Your task to perform on an android device: Is it going to rain this weekend? Image 0: 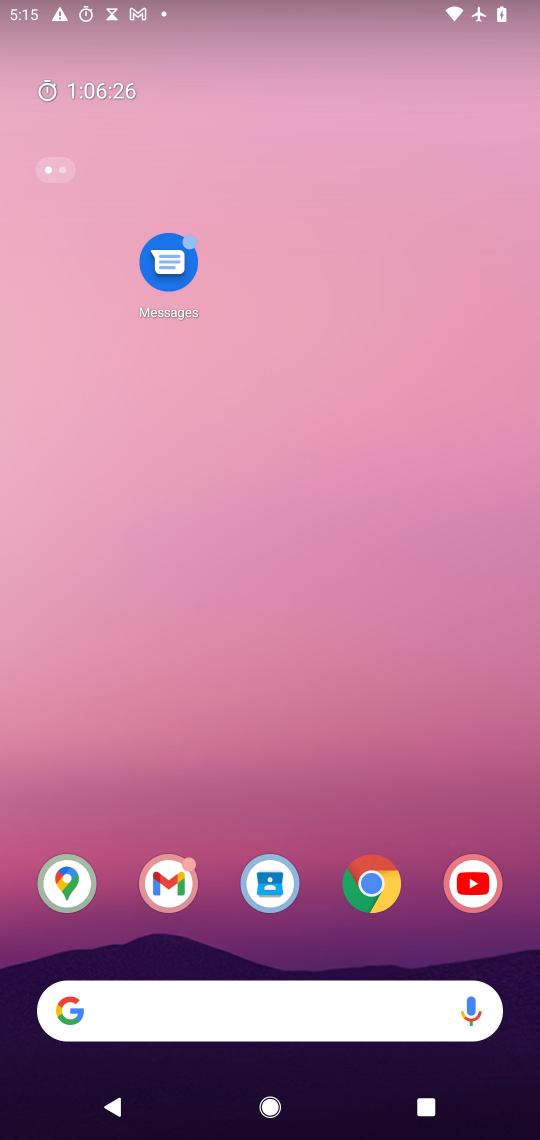
Step 0: drag from (324, 906) to (320, 53)
Your task to perform on an android device: Is it going to rain this weekend? Image 1: 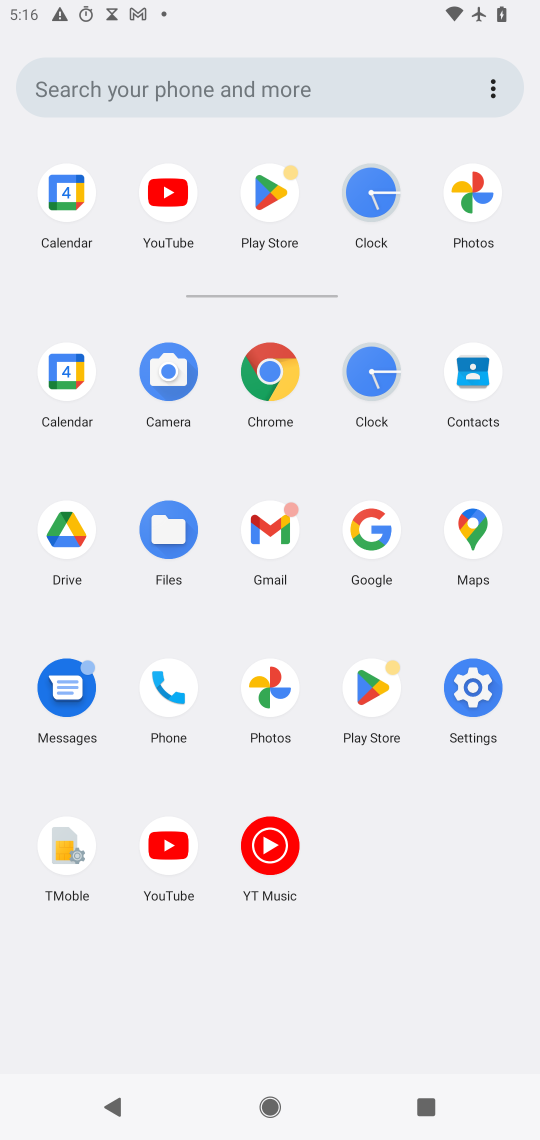
Step 1: click (376, 528)
Your task to perform on an android device: Is it going to rain this weekend? Image 2: 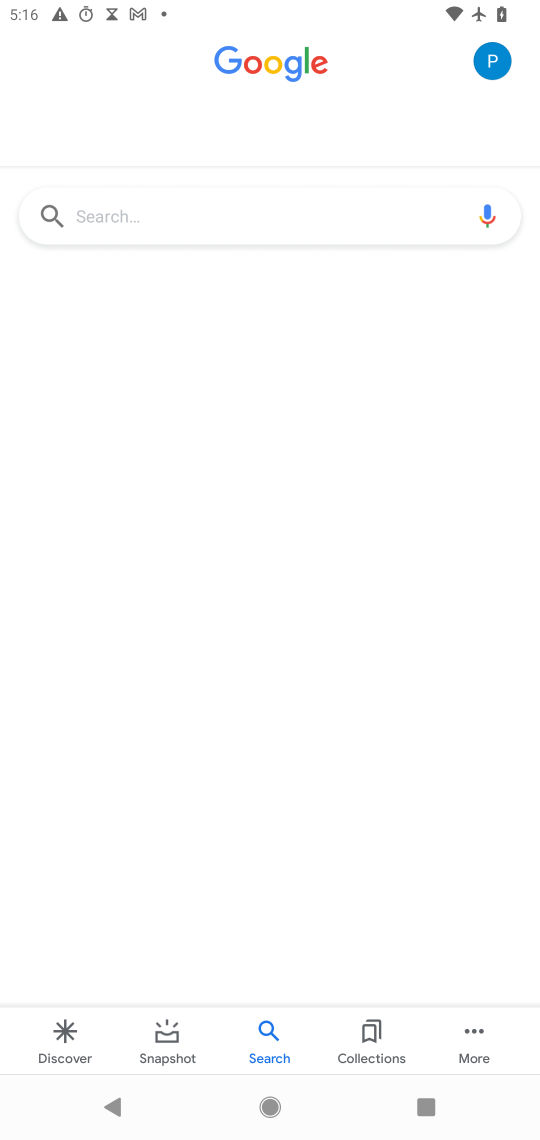
Step 2: click (218, 218)
Your task to perform on an android device: Is it going to rain this weekend? Image 3: 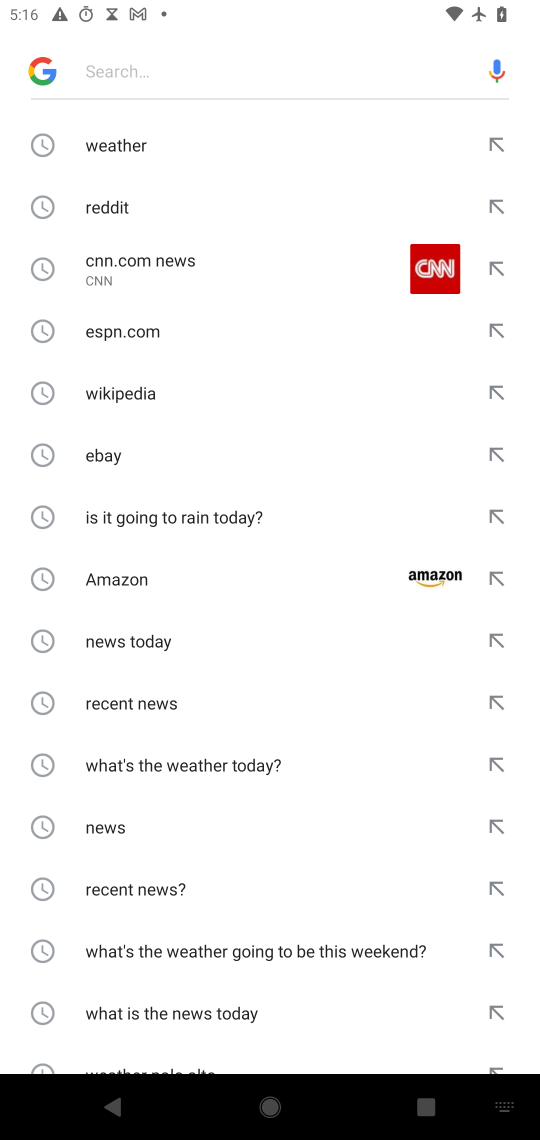
Step 3: click (114, 142)
Your task to perform on an android device: Is it going to rain this weekend? Image 4: 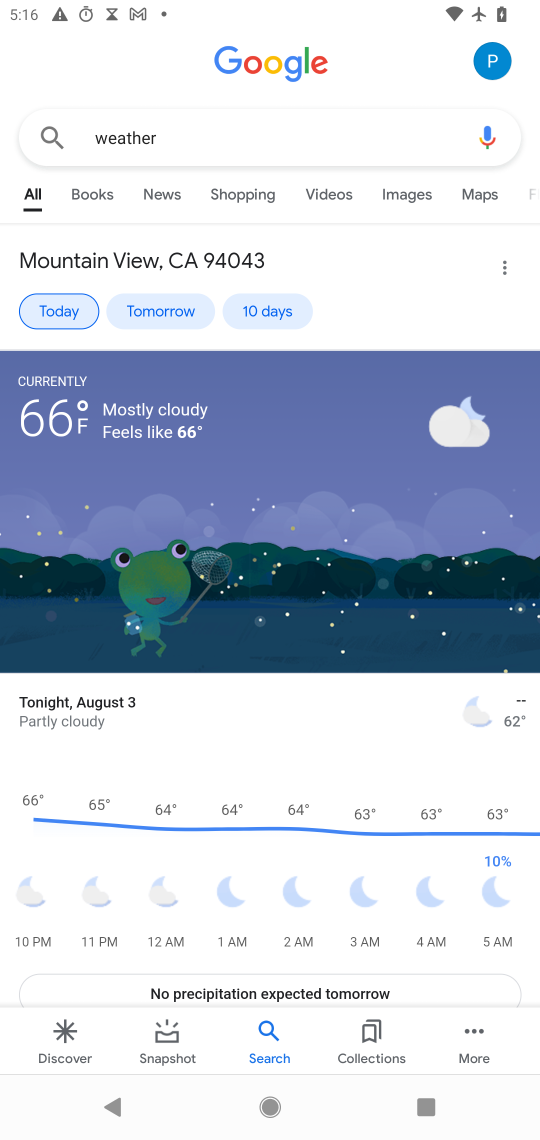
Step 4: click (270, 308)
Your task to perform on an android device: Is it going to rain this weekend? Image 5: 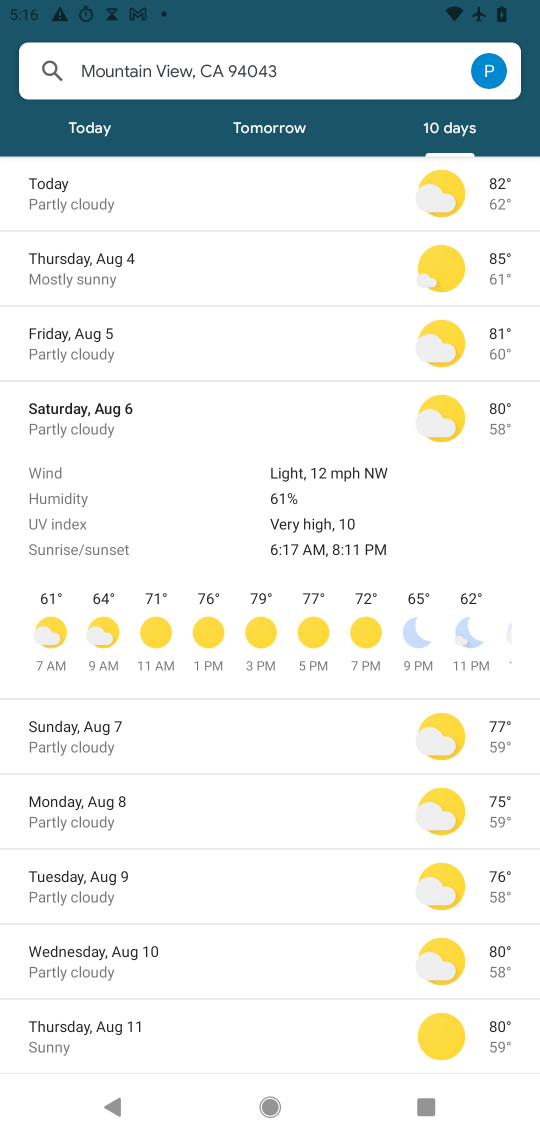
Step 5: task complete